Your task to perform on an android device: Go to battery settings Image 0: 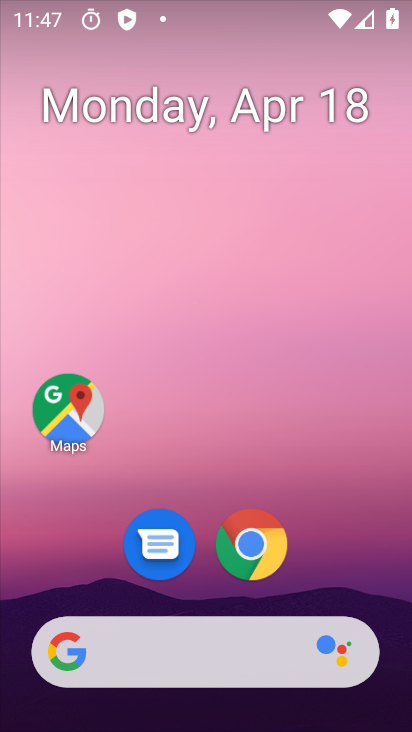
Step 0: drag from (371, 556) to (349, 0)
Your task to perform on an android device: Go to battery settings Image 1: 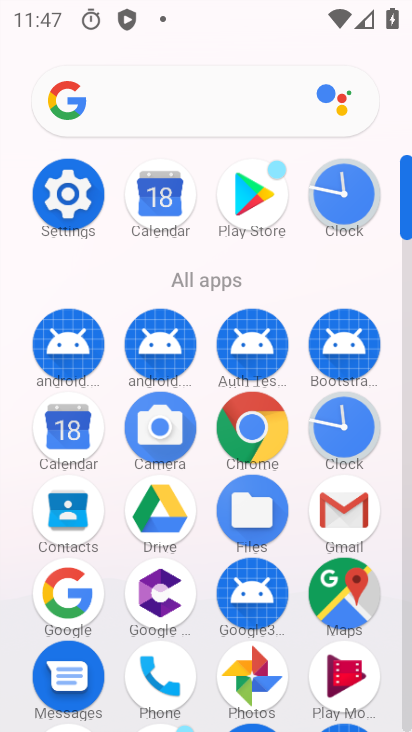
Step 1: click (66, 209)
Your task to perform on an android device: Go to battery settings Image 2: 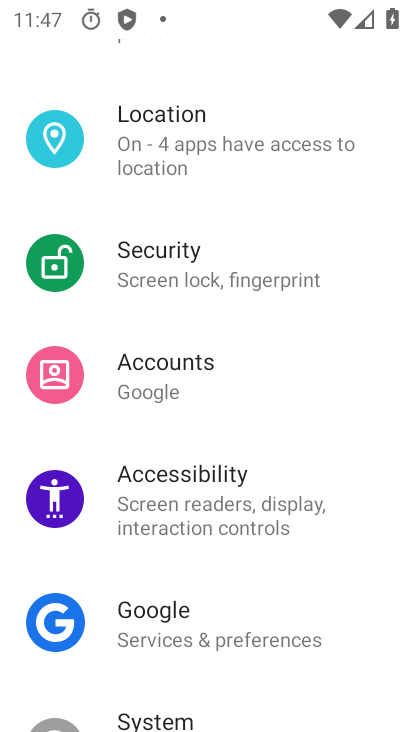
Step 2: drag from (334, 324) to (328, 561)
Your task to perform on an android device: Go to battery settings Image 3: 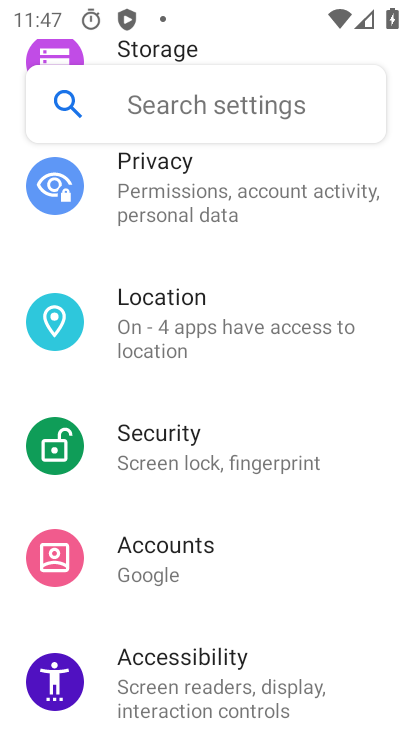
Step 3: drag from (390, 283) to (390, 615)
Your task to perform on an android device: Go to battery settings Image 4: 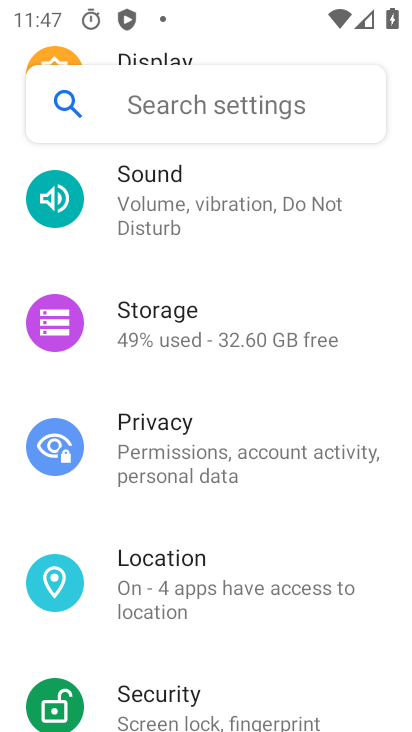
Step 4: drag from (375, 328) to (367, 616)
Your task to perform on an android device: Go to battery settings Image 5: 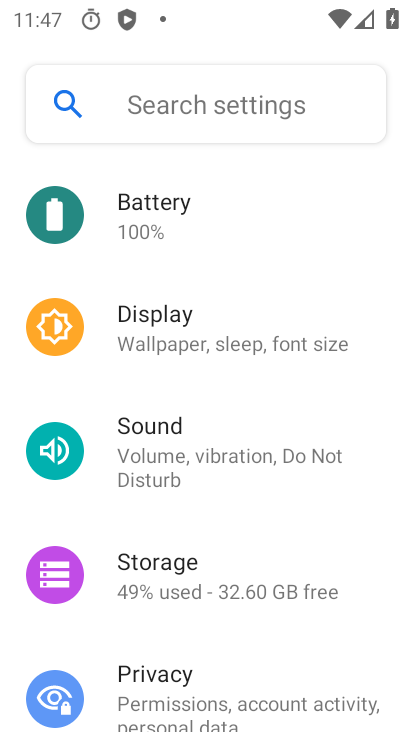
Step 5: click (151, 223)
Your task to perform on an android device: Go to battery settings Image 6: 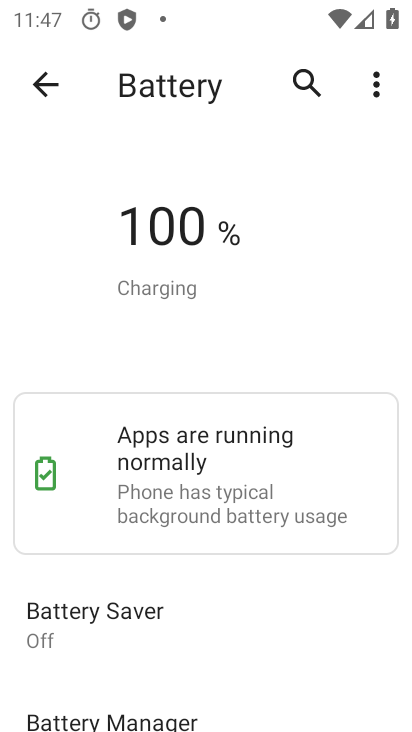
Step 6: task complete